Your task to perform on an android device: Open CNN.com Image 0: 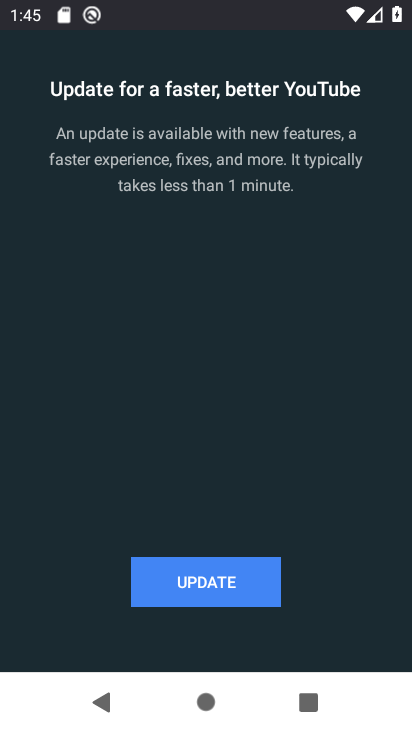
Step 0: press back button
Your task to perform on an android device: Open CNN.com Image 1: 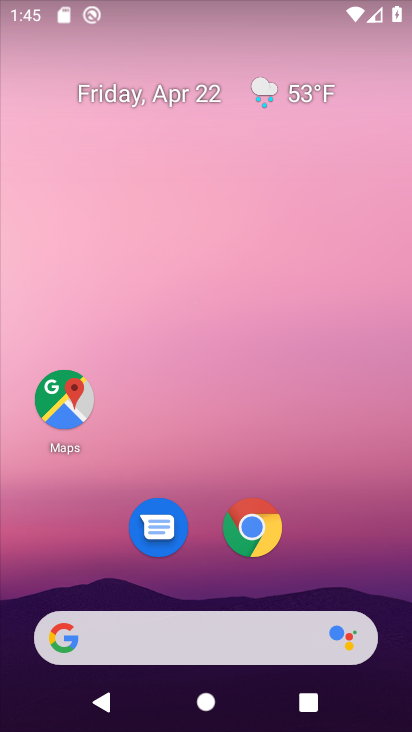
Step 1: click (258, 540)
Your task to perform on an android device: Open CNN.com Image 2: 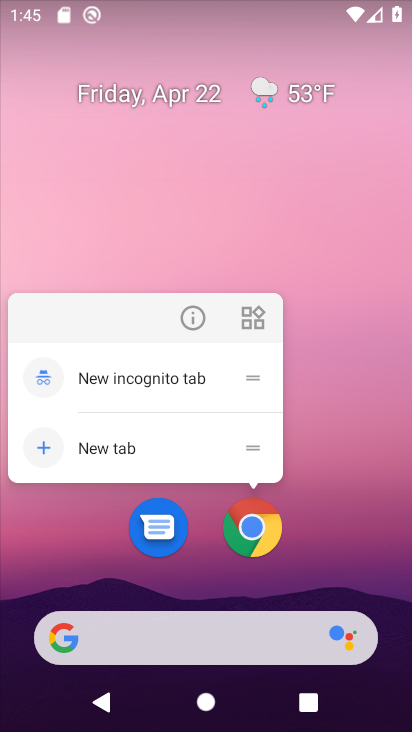
Step 2: click (261, 536)
Your task to perform on an android device: Open CNN.com Image 3: 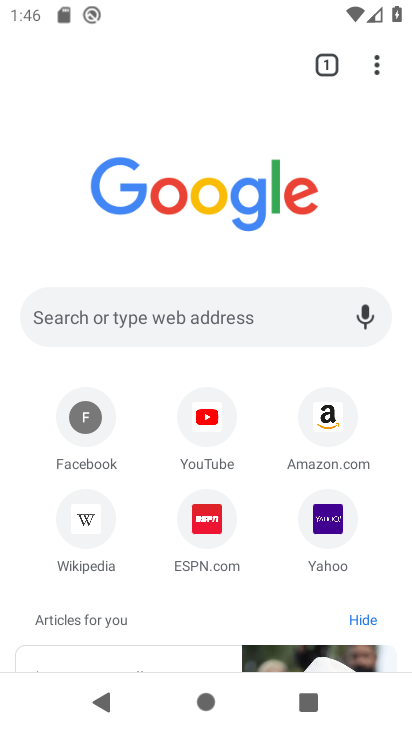
Step 3: click (282, 317)
Your task to perform on an android device: Open CNN.com Image 4: 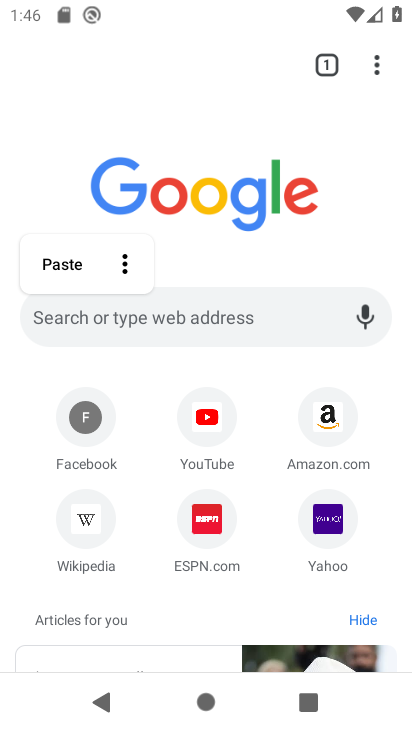
Step 4: type "cnn.com"
Your task to perform on an android device: Open CNN.com Image 5: 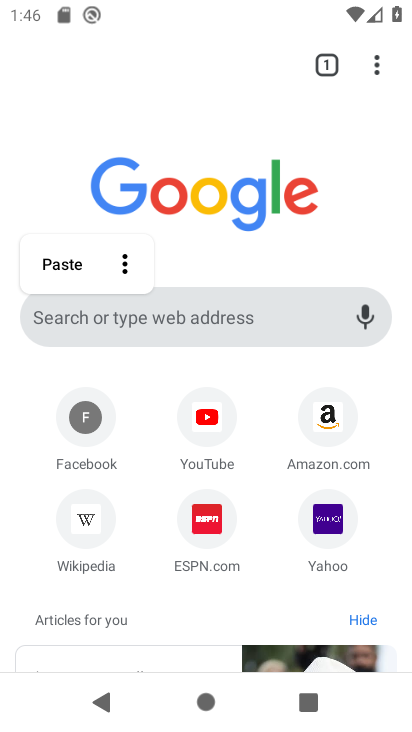
Step 5: click (258, 313)
Your task to perform on an android device: Open CNN.com Image 6: 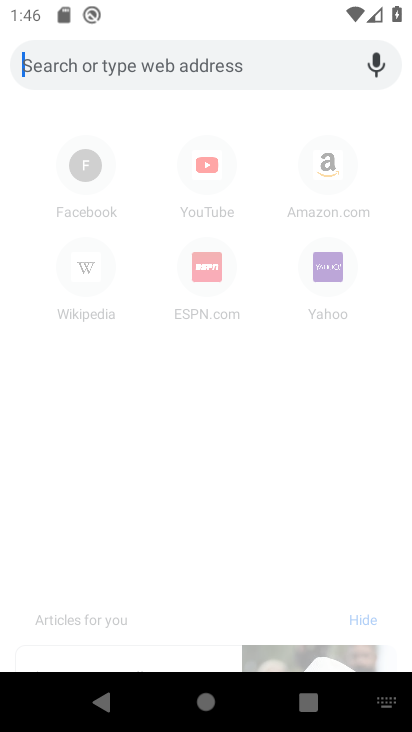
Step 6: type "cnn.com"
Your task to perform on an android device: Open CNN.com Image 7: 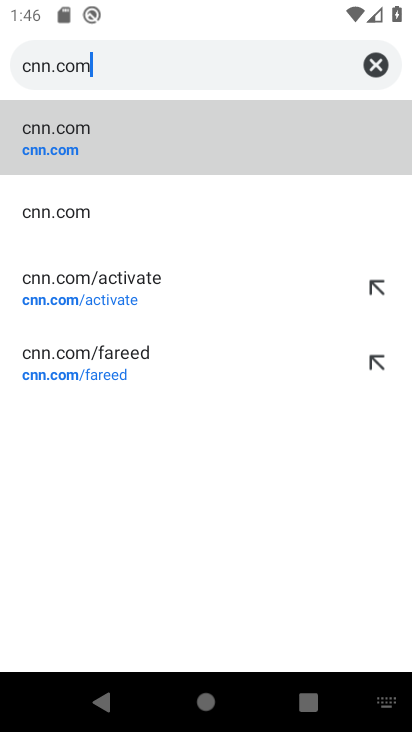
Step 7: click (72, 152)
Your task to perform on an android device: Open CNN.com Image 8: 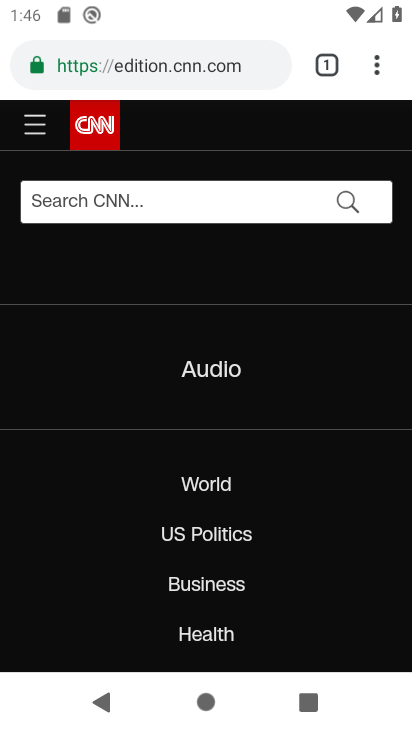
Step 8: task complete